Your task to perform on an android device: What's the weather going to be this weekend? Image 0: 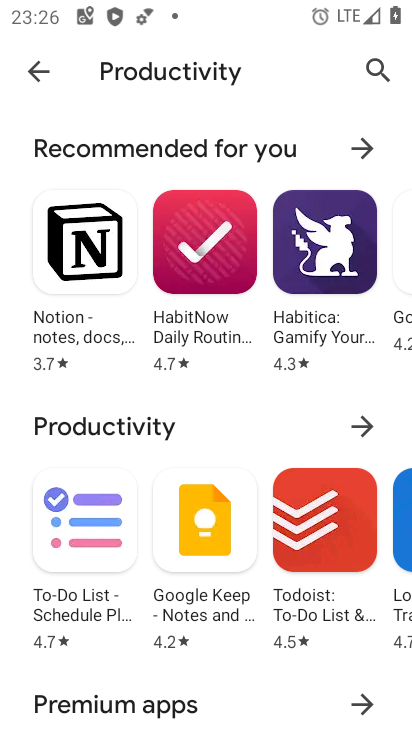
Step 0: press home button
Your task to perform on an android device: What's the weather going to be this weekend? Image 1: 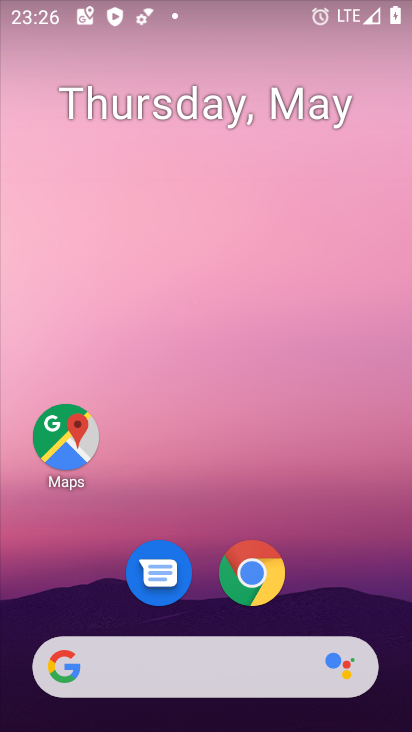
Step 1: drag from (197, 611) to (194, 123)
Your task to perform on an android device: What's the weather going to be this weekend? Image 2: 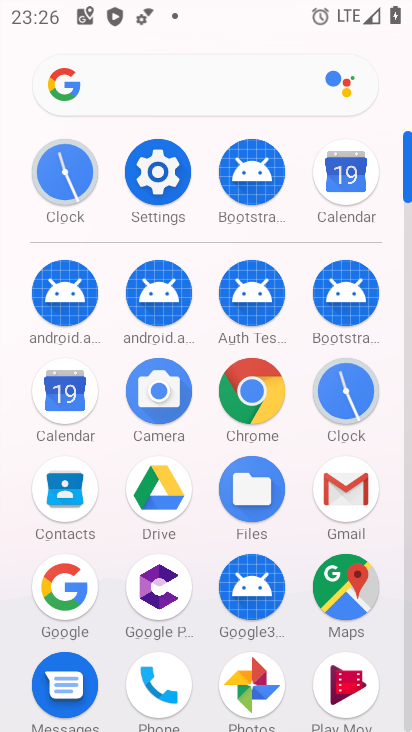
Step 2: click (71, 582)
Your task to perform on an android device: What's the weather going to be this weekend? Image 3: 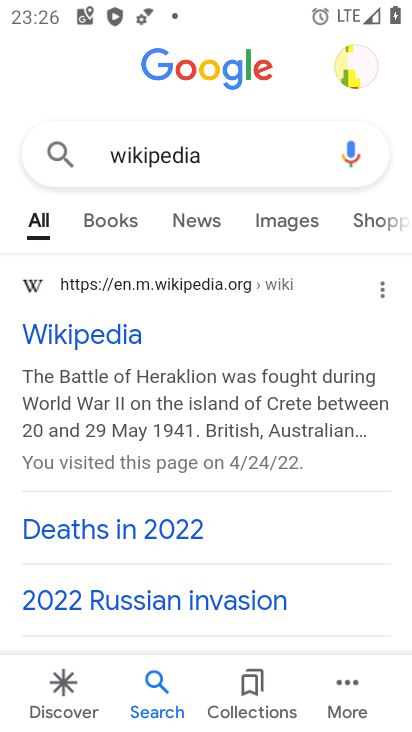
Step 3: click (202, 155)
Your task to perform on an android device: What's the weather going to be this weekend? Image 4: 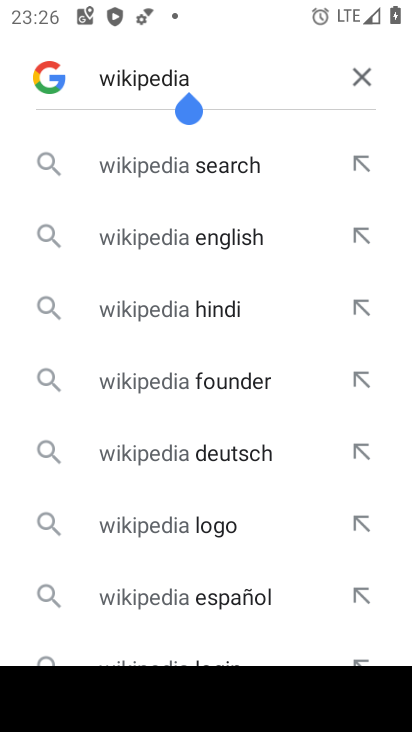
Step 4: click (350, 75)
Your task to perform on an android device: What's the weather going to be this weekend? Image 5: 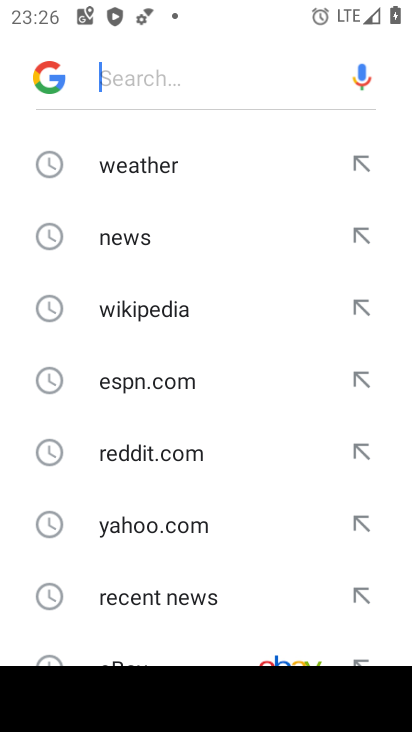
Step 5: click (151, 169)
Your task to perform on an android device: What's the weather going to be this weekend? Image 6: 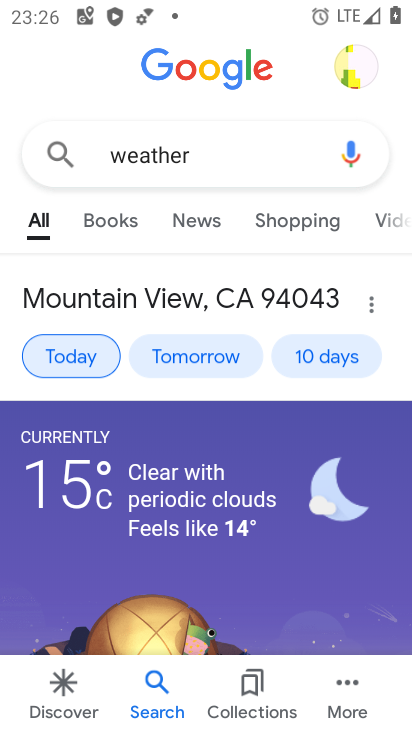
Step 6: click (314, 350)
Your task to perform on an android device: What's the weather going to be this weekend? Image 7: 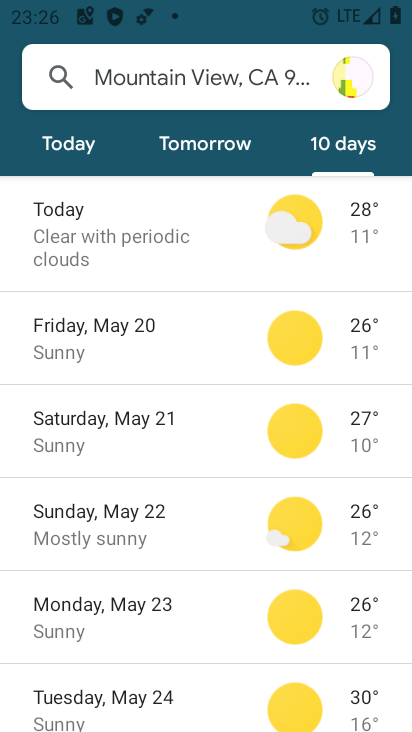
Step 7: task complete